Your task to perform on an android device: find which apps use the phone's location Image 0: 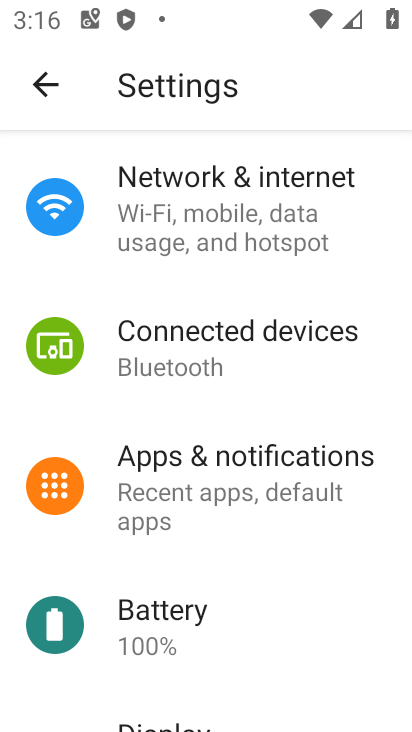
Step 0: click (256, 476)
Your task to perform on an android device: find which apps use the phone's location Image 1: 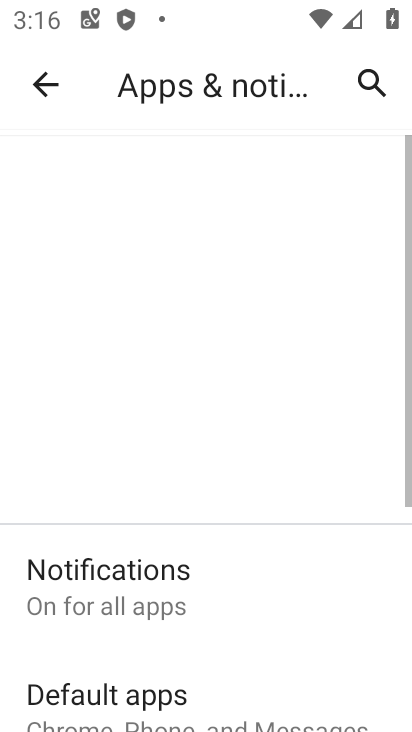
Step 1: click (41, 70)
Your task to perform on an android device: find which apps use the phone's location Image 2: 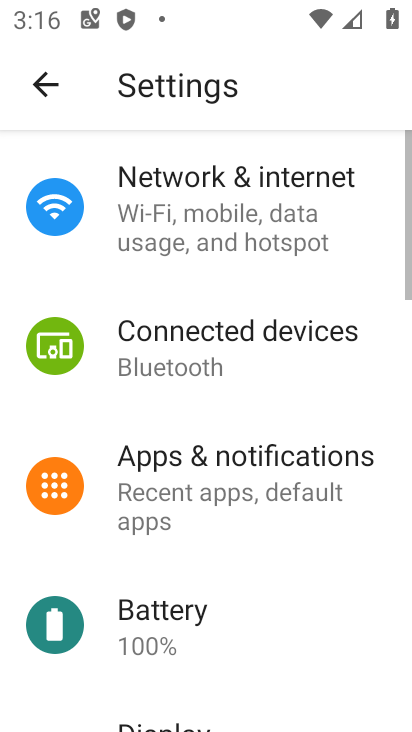
Step 2: drag from (190, 595) to (295, 167)
Your task to perform on an android device: find which apps use the phone's location Image 3: 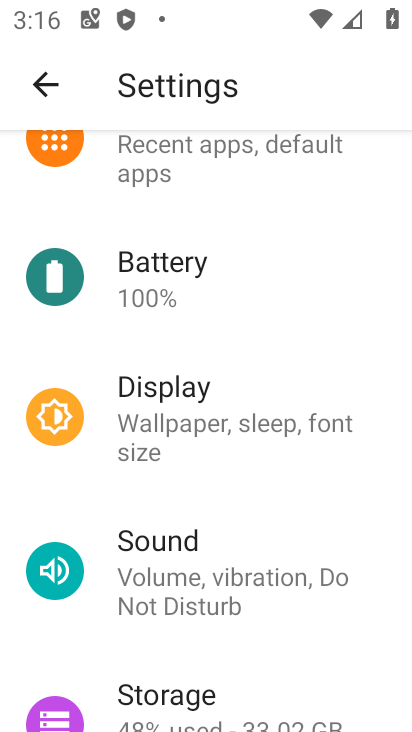
Step 3: drag from (252, 643) to (298, 260)
Your task to perform on an android device: find which apps use the phone's location Image 4: 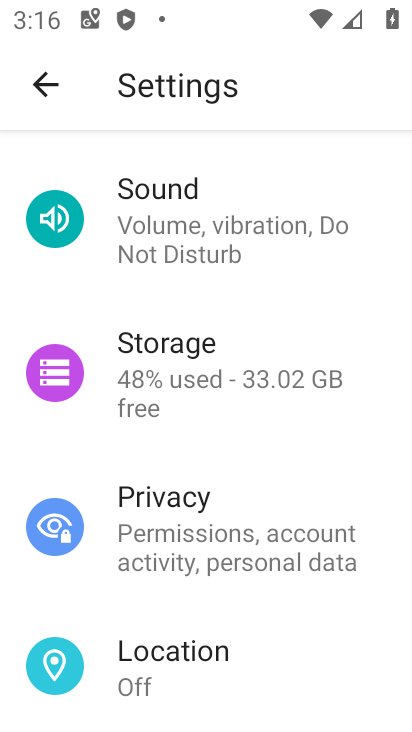
Step 4: click (207, 657)
Your task to perform on an android device: find which apps use the phone's location Image 5: 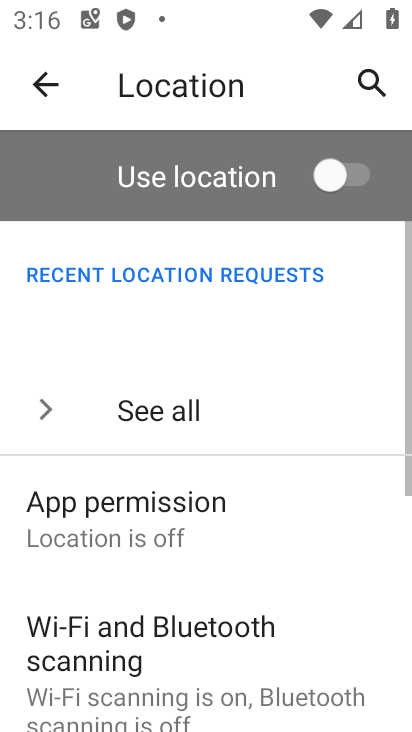
Step 5: task complete